Your task to perform on an android device: Go to location settings Image 0: 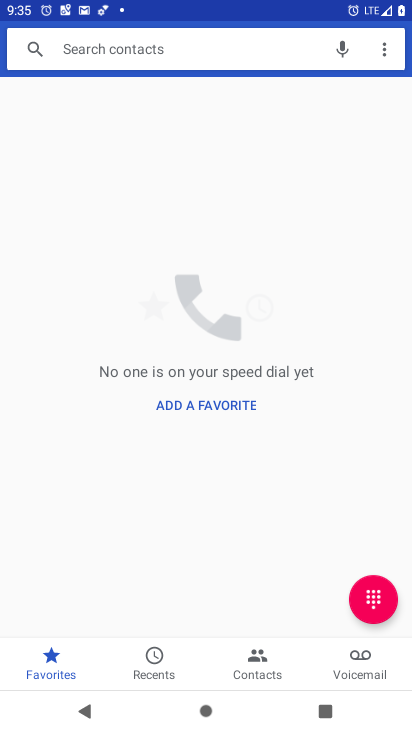
Step 0: press home button
Your task to perform on an android device: Go to location settings Image 1: 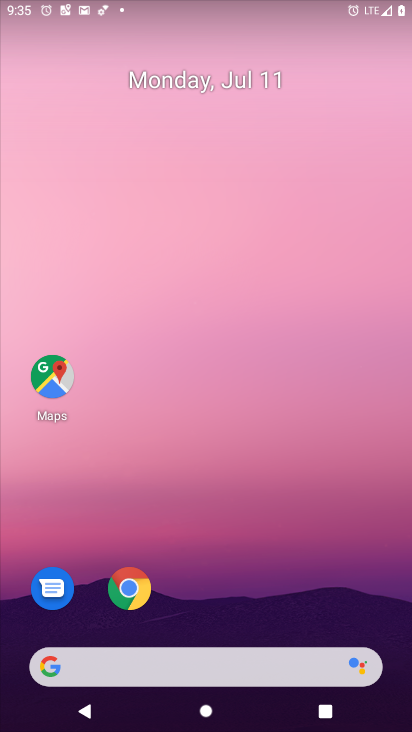
Step 1: drag from (174, 655) to (289, 168)
Your task to perform on an android device: Go to location settings Image 2: 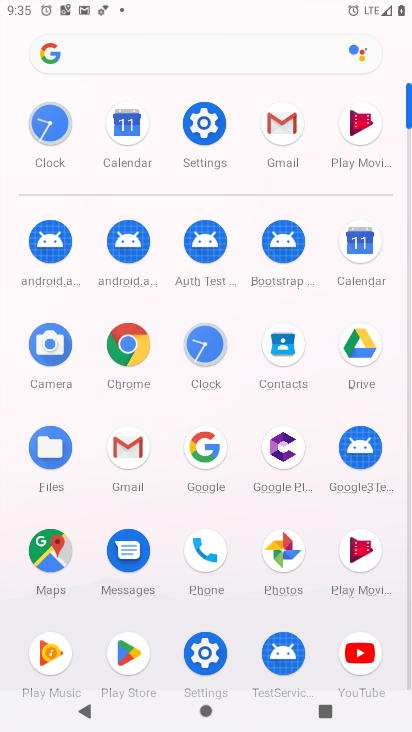
Step 2: click (205, 118)
Your task to perform on an android device: Go to location settings Image 3: 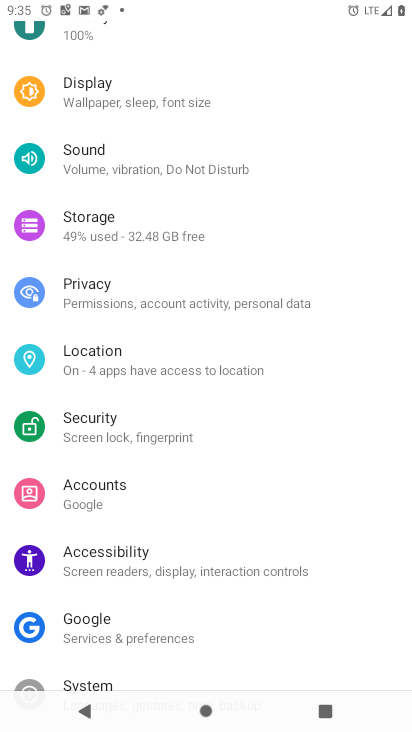
Step 3: click (137, 374)
Your task to perform on an android device: Go to location settings Image 4: 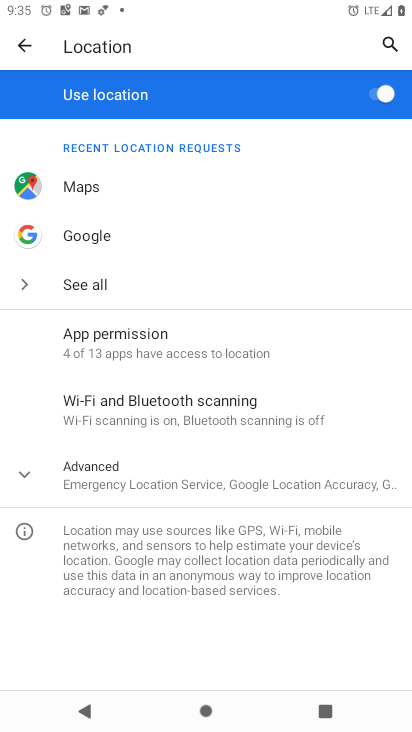
Step 4: task complete